Your task to perform on an android device: Open the web browser Image 0: 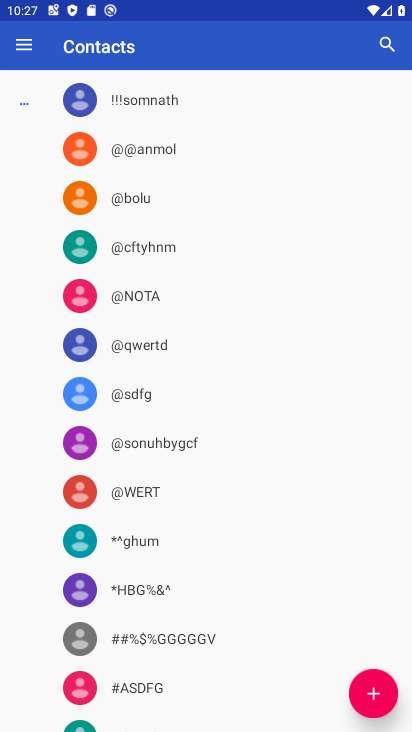
Step 0: press home button
Your task to perform on an android device: Open the web browser Image 1: 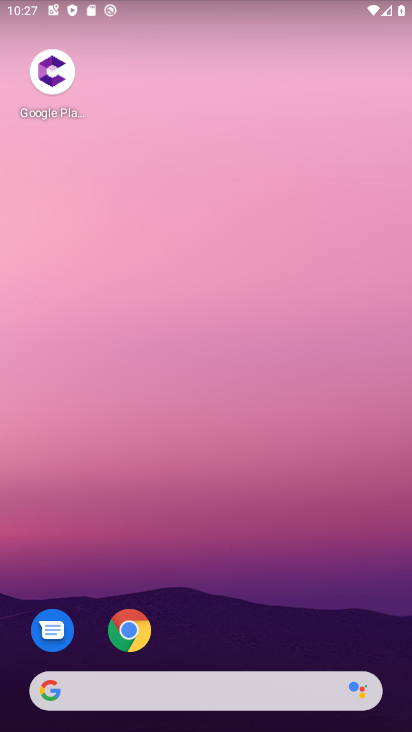
Step 1: click (122, 645)
Your task to perform on an android device: Open the web browser Image 2: 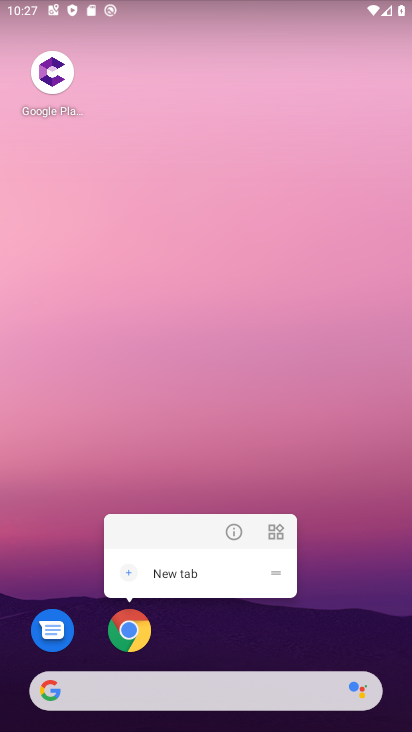
Step 2: click (122, 645)
Your task to perform on an android device: Open the web browser Image 3: 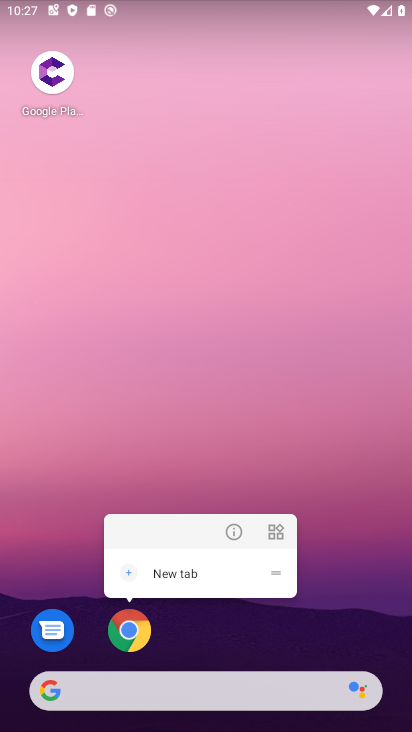
Step 3: click (122, 645)
Your task to perform on an android device: Open the web browser Image 4: 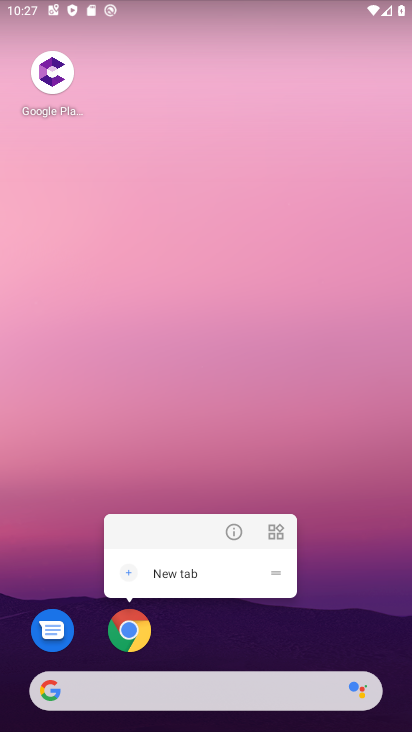
Step 4: click (122, 645)
Your task to perform on an android device: Open the web browser Image 5: 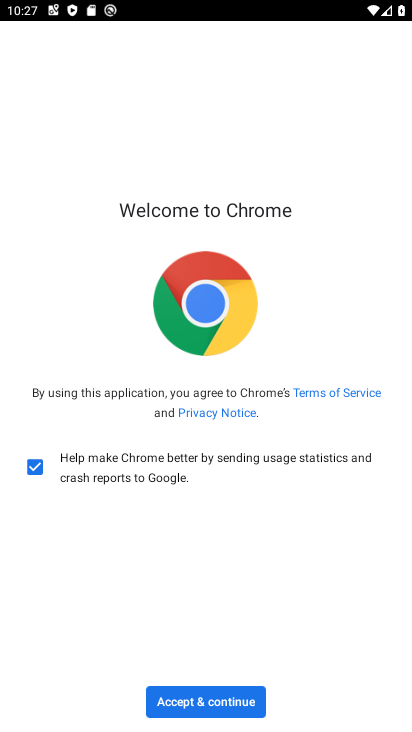
Step 5: click (212, 699)
Your task to perform on an android device: Open the web browser Image 6: 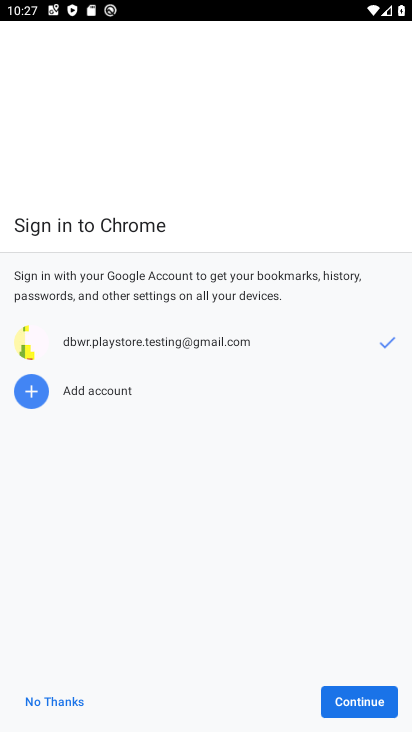
Step 6: click (359, 705)
Your task to perform on an android device: Open the web browser Image 7: 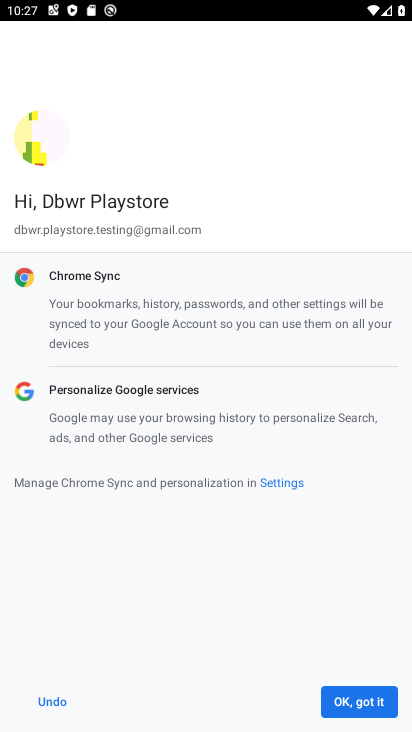
Step 7: click (358, 698)
Your task to perform on an android device: Open the web browser Image 8: 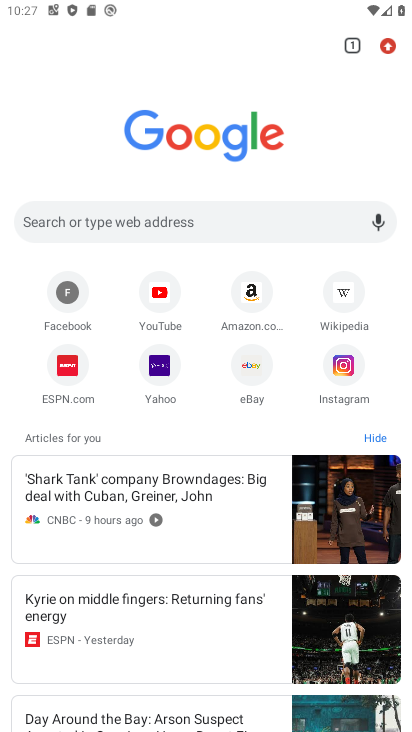
Step 8: task complete